Your task to perform on an android device: open chrome and create a bookmark for the current page Image 0: 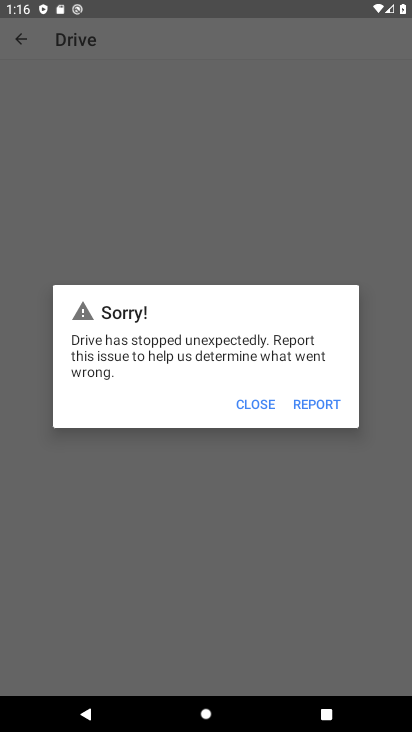
Step 0: press home button
Your task to perform on an android device: open chrome and create a bookmark for the current page Image 1: 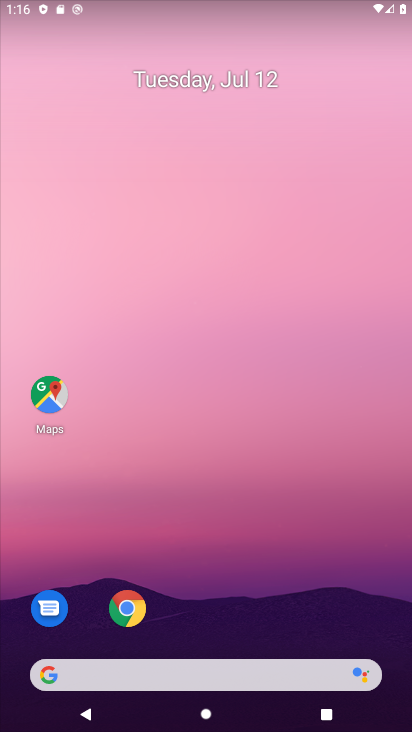
Step 1: click (101, 613)
Your task to perform on an android device: open chrome and create a bookmark for the current page Image 2: 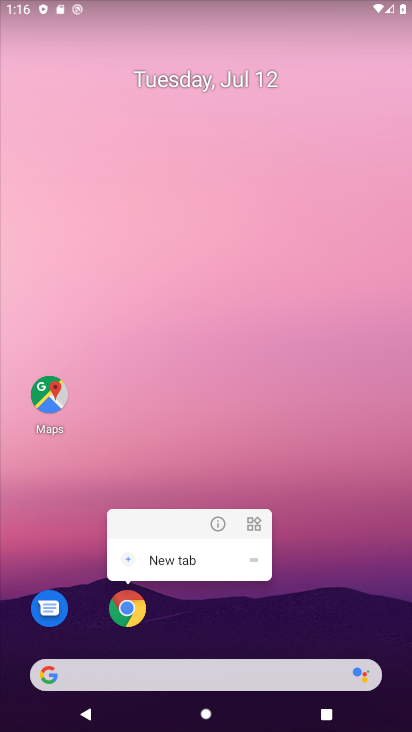
Step 2: click (130, 614)
Your task to perform on an android device: open chrome and create a bookmark for the current page Image 3: 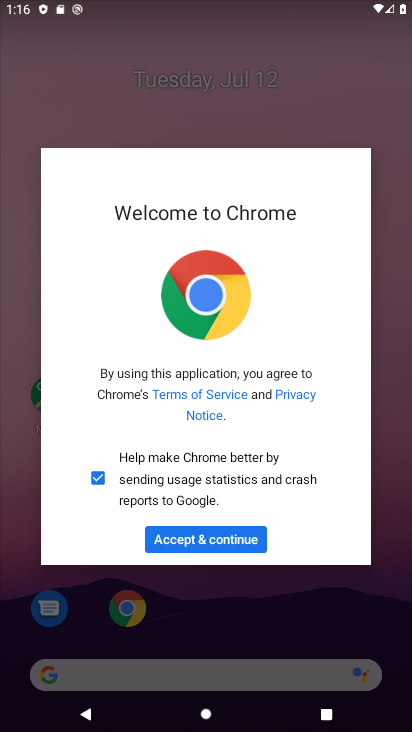
Step 3: click (221, 534)
Your task to perform on an android device: open chrome and create a bookmark for the current page Image 4: 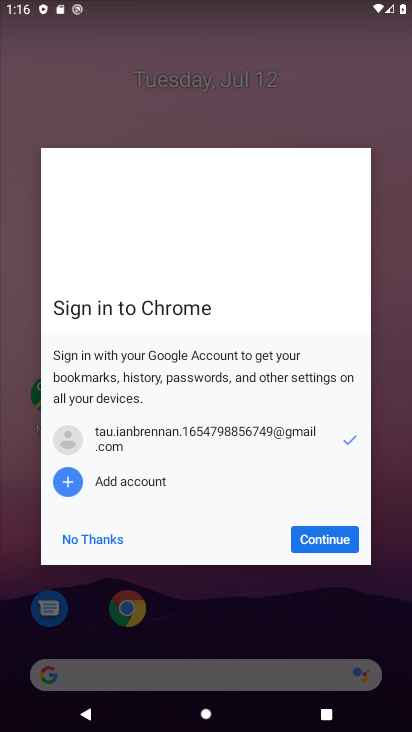
Step 4: click (348, 535)
Your task to perform on an android device: open chrome and create a bookmark for the current page Image 5: 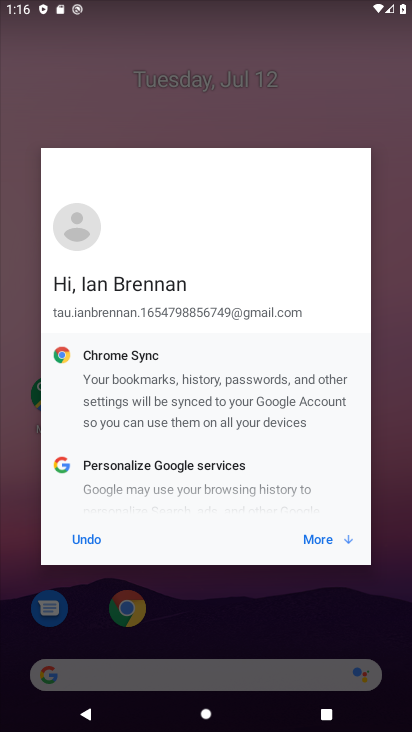
Step 5: click (341, 531)
Your task to perform on an android device: open chrome and create a bookmark for the current page Image 6: 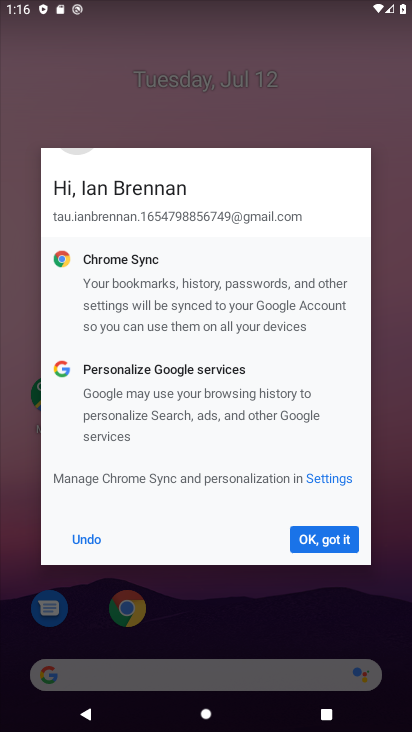
Step 6: click (341, 531)
Your task to perform on an android device: open chrome and create a bookmark for the current page Image 7: 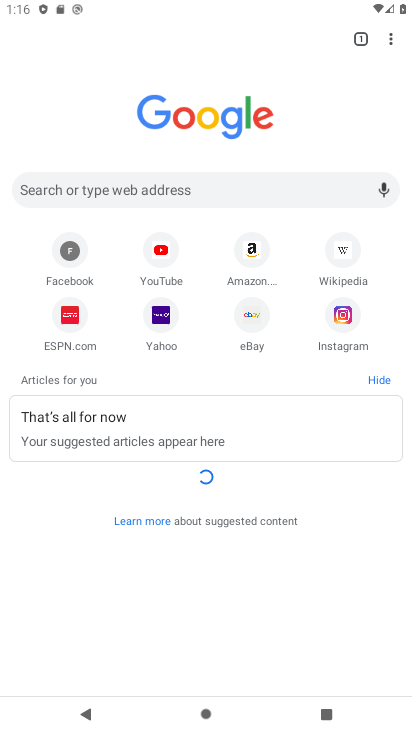
Step 7: click (392, 37)
Your task to perform on an android device: open chrome and create a bookmark for the current page Image 8: 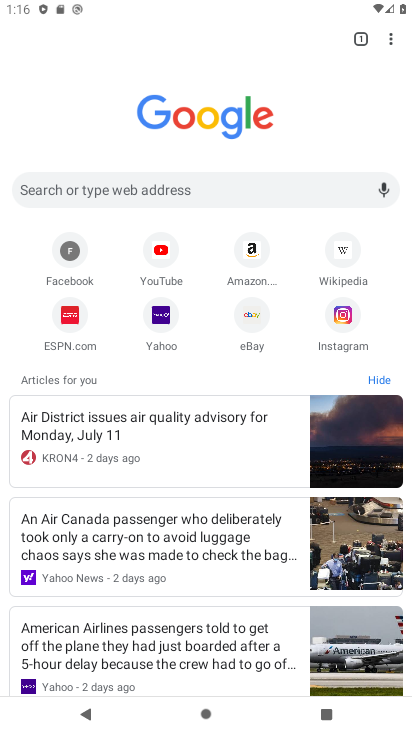
Step 8: click (392, 37)
Your task to perform on an android device: open chrome and create a bookmark for the current page Image 9: 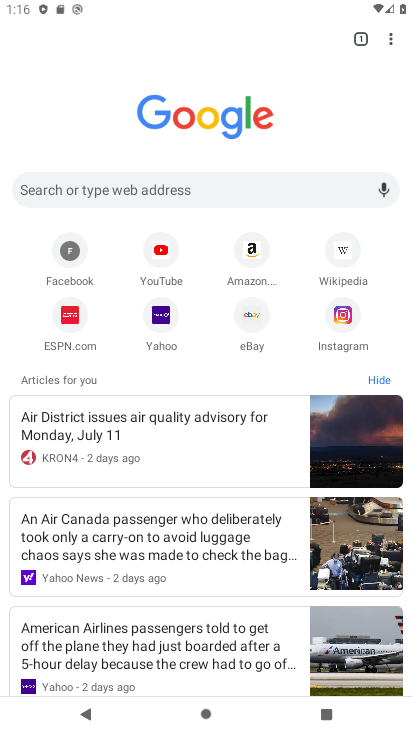
Step 9: click (393, 39)
Your task to perform on an android device: open chrome and create a bookmark for the current page Image 10: 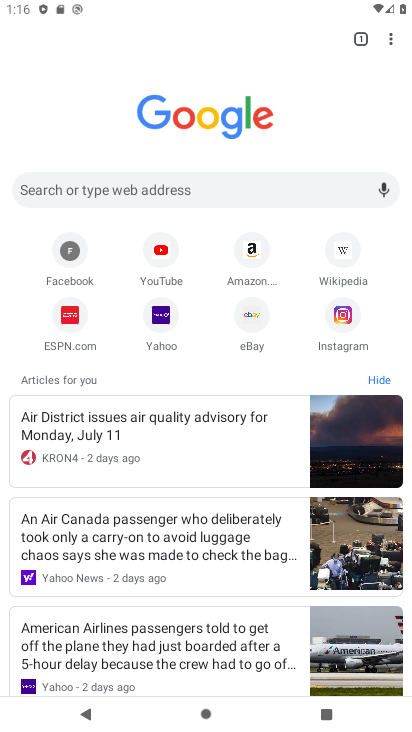
Step 10: click (392, 42)
Your task to perform on an android device: open chrome and create a bookmark for the current page Image 11: 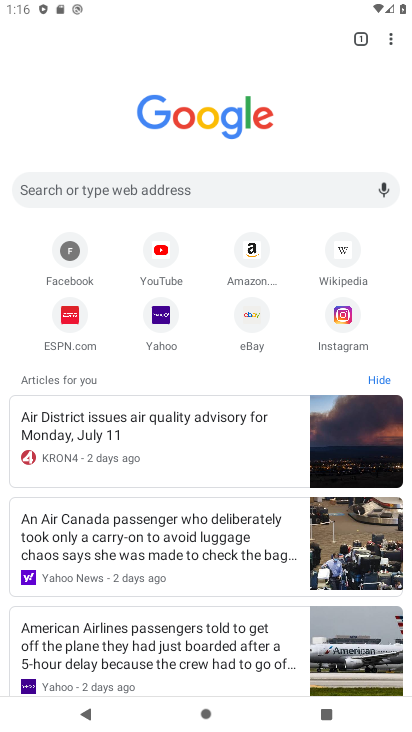
Step 11: click (392, 47)
Your task to perform on an android device: open chrome and create a bookmark for the current page Image 12: 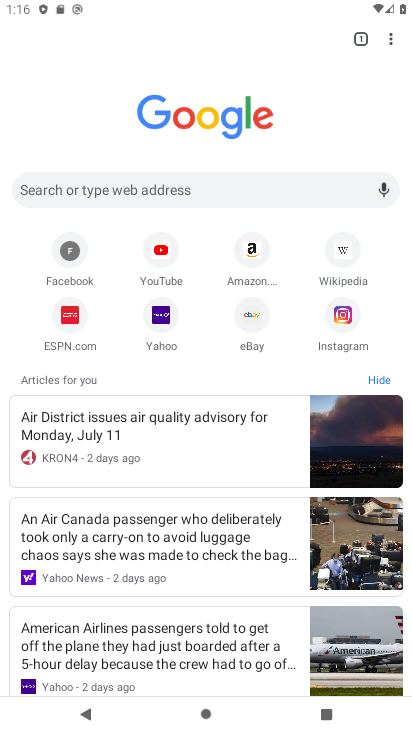
Step 12: click (393, 46)
Your task to perform on an android device: open chrome and create a bookmark for the current page Image 13: 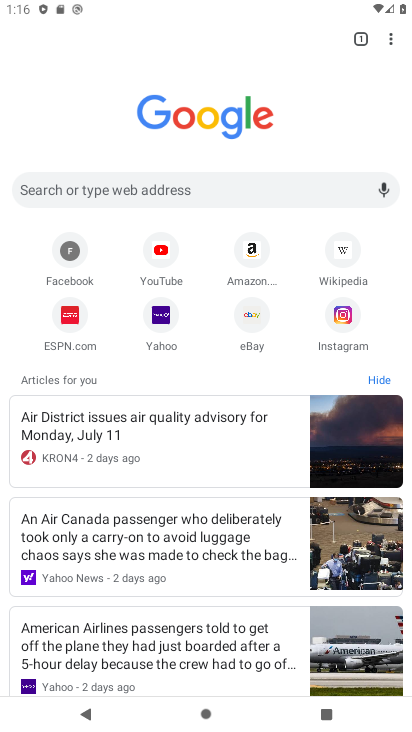
Step 13: click (393, 46)
Your task to perform on an android device: open chrome and create a bookmark for the current page Image 14: 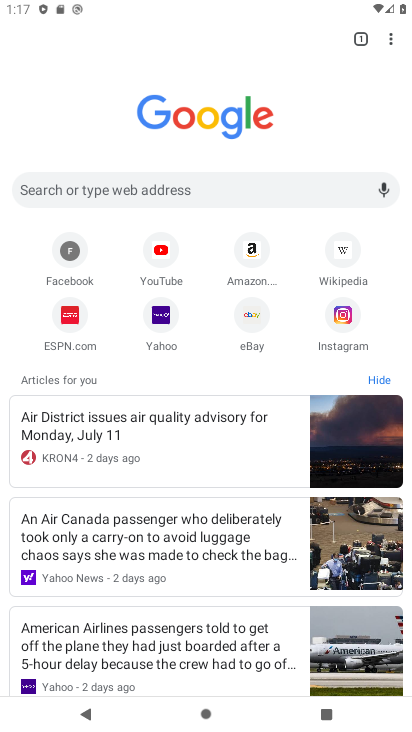
Step 14: click (393, 46)
Your task to perform on an android device: open chrome and create a bookmark for the current page Image 15: 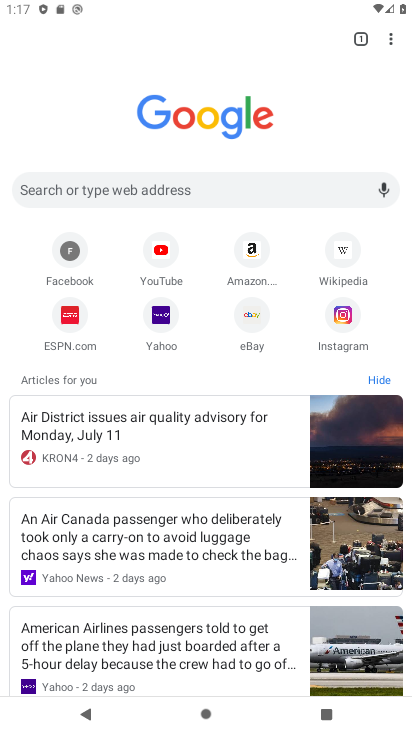
Step 15: click (394, 47)
Your task to perform on an android device: open chrome and create a bookmark for the current page Image 16: 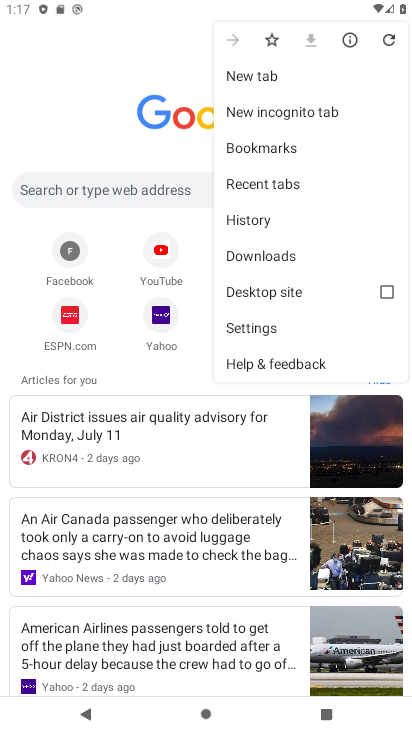
Step 16: click (268, 43)
Your task to perform on an android device: open chrome and create a bookmark for the current page Image 17: 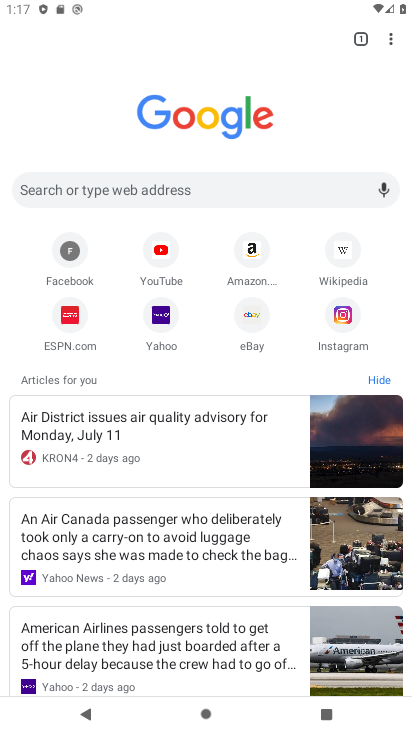
Step 17: task complete